Your task to perform on an android device: Go to location settings Image 0: 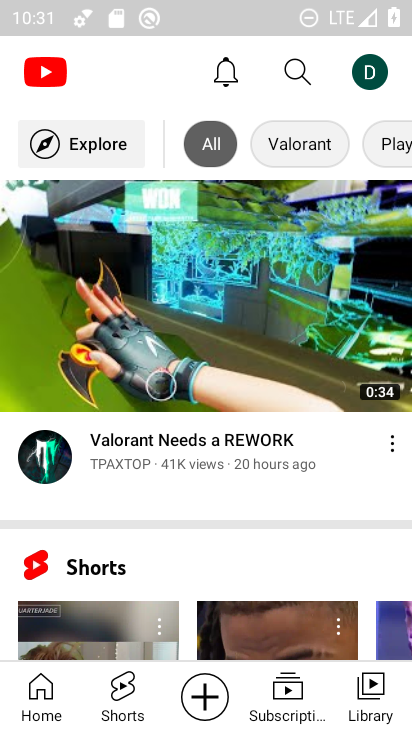
Step 0: press home button
Your task to perform on an android device: Go to location settings Image 1: 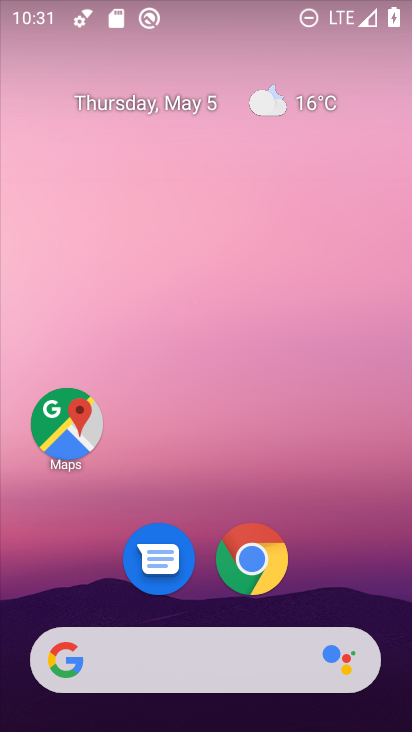
Step 1: drag from (398, 645) to (341, 138)
Your task to perform on an android device: Go to location settings Image 2: 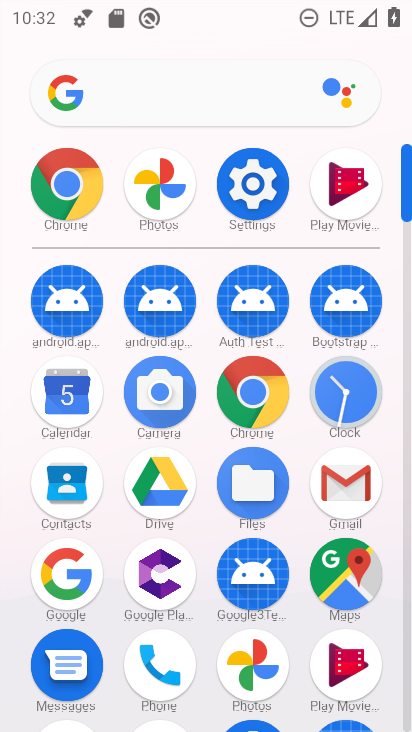
Step 2: click (261, 196)
Your task to perform on an android device: Go to location settings Image 3: 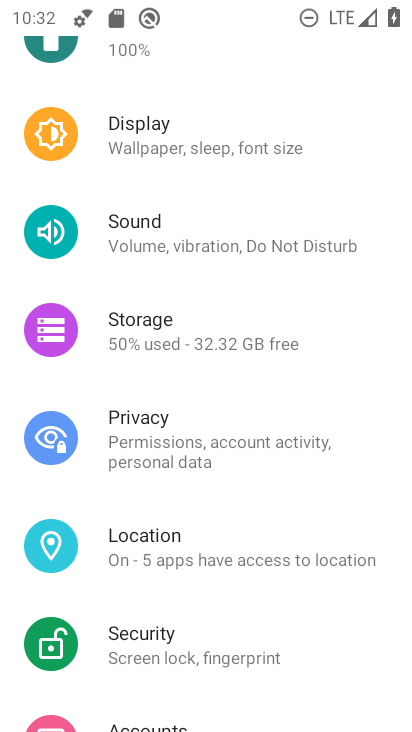
Step 3: click (204, 546)
Your task to perform on an android device: Go to location settings Image 4: 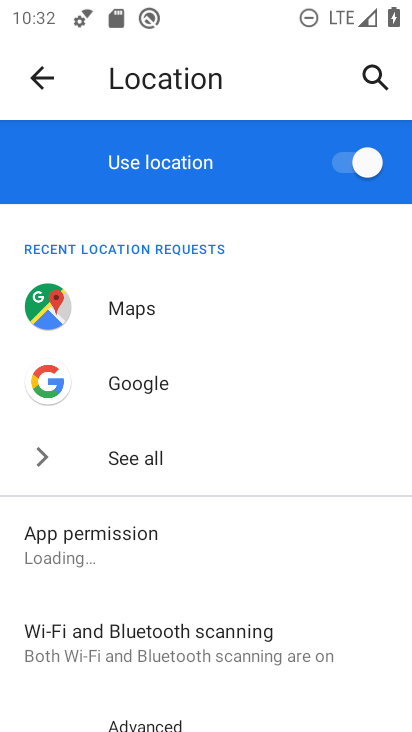
Step 4: task complete